Your task to perform on an android device: install app "Google Drive" Image 0: 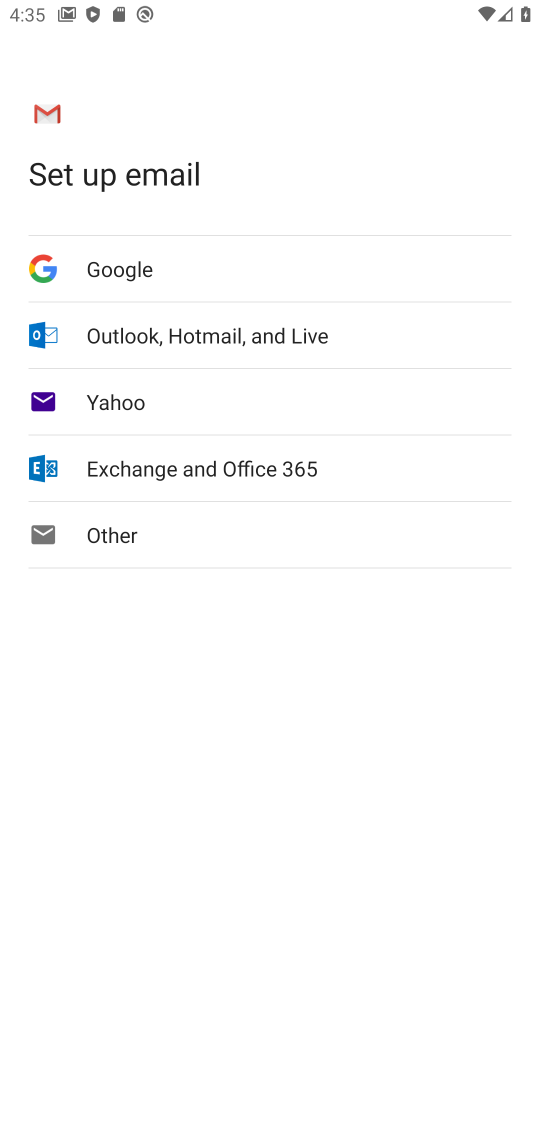
Step 0: press home button
Your task to perform on an android device: install app "Google Drive" Image 1: 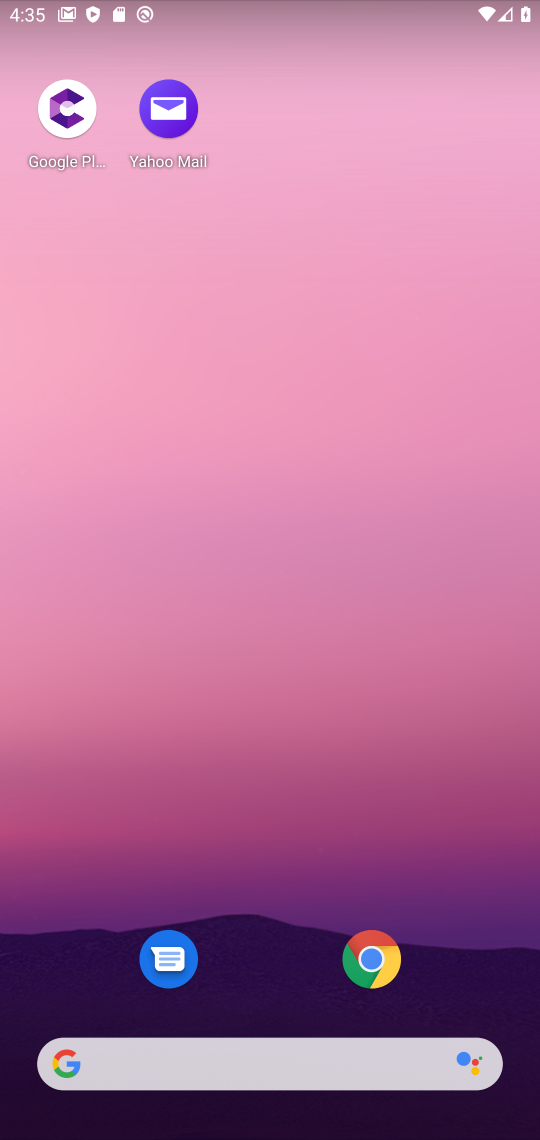
Step 1: drag from (168, 1049) to (185, 534)
Your task to perform on an android device: install app "Google Drive" Image 2: 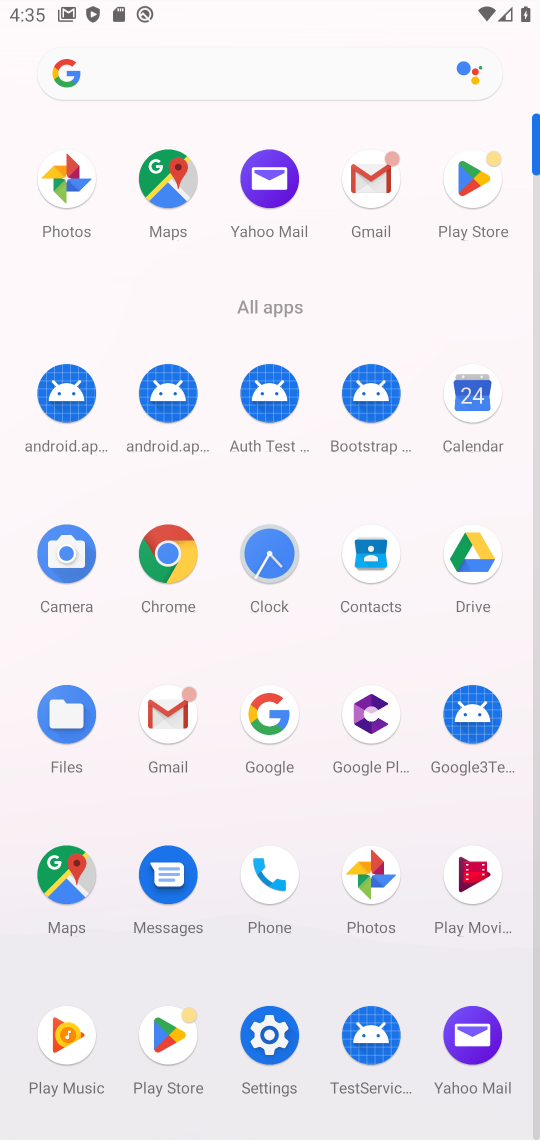
Step 2: click (466, 565)
Your task to perform on an android device: install app "Google Drive" Image 3: 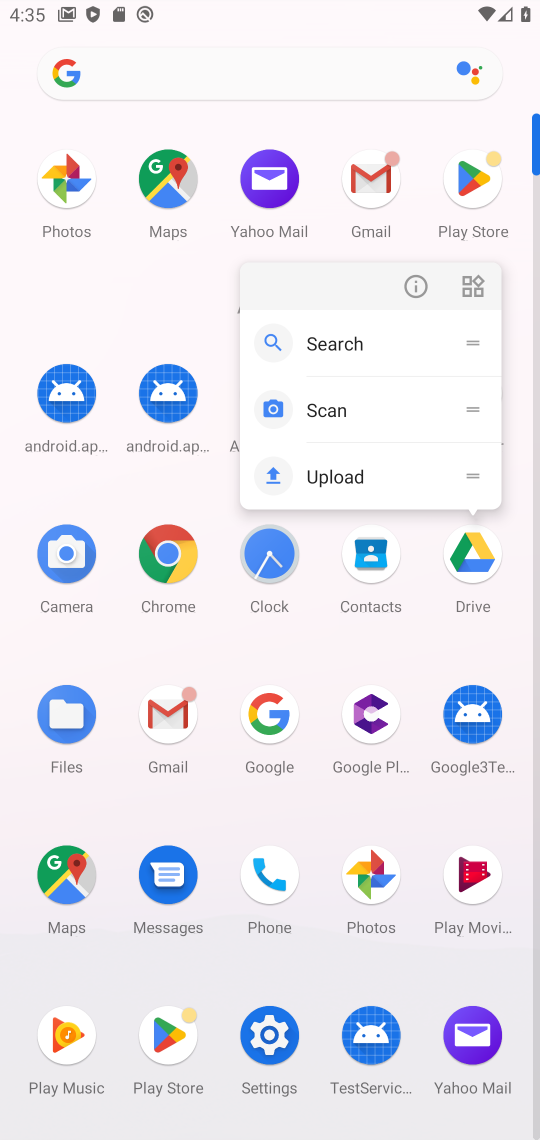
Step 3: click (462, 542)
Your task to perform on an android device: install app "Google Drive" Image 4: 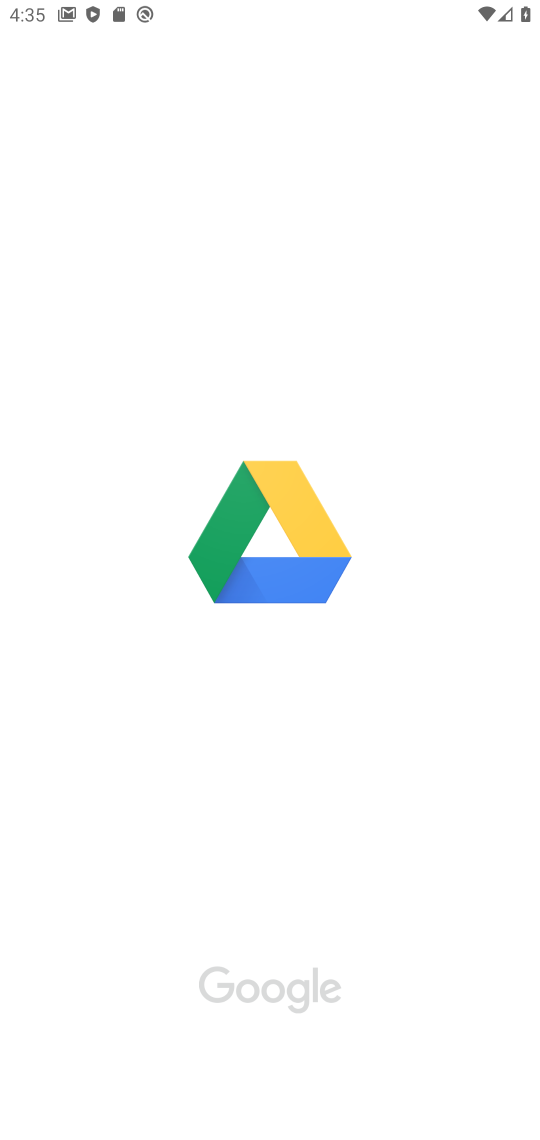
Step 4: task complete